Your task to perform on an android device: Open Youtube and go to the subscriptions tab Image 0: 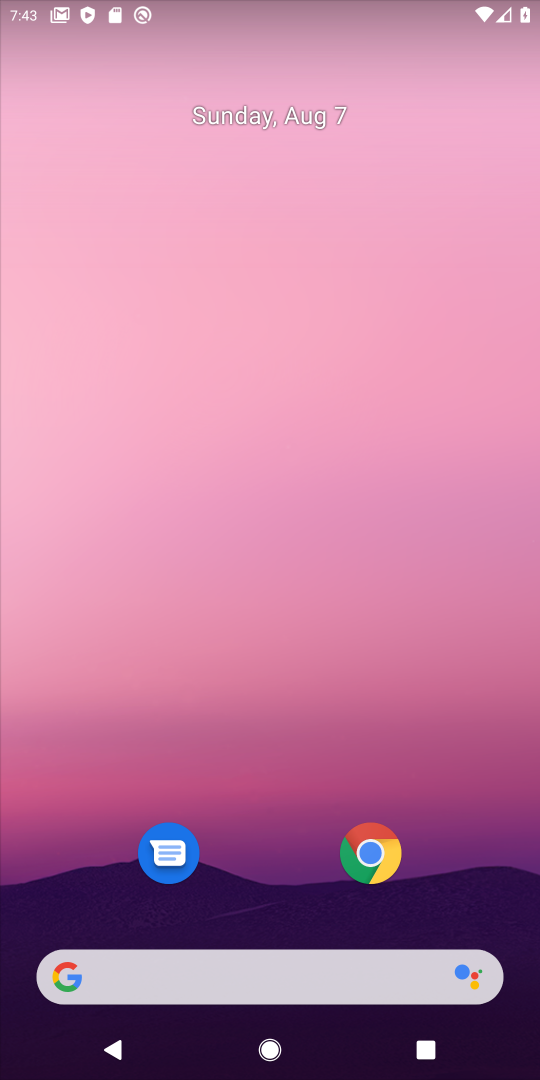
Step 0: drag from (278, 886) to (345, 113)
Your task to perform on an android device: Open Youtube and go to the subscriptions tab Image 1: 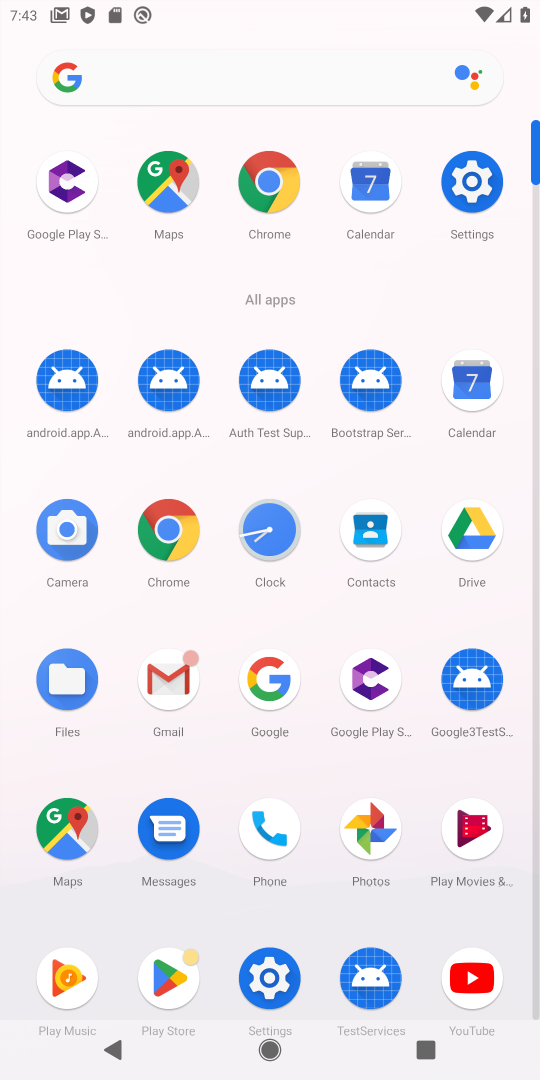
Step 1: click (471, 983)
Your task to perform on an android device: Open Youtube and go to the subscriptions tab Image 2: 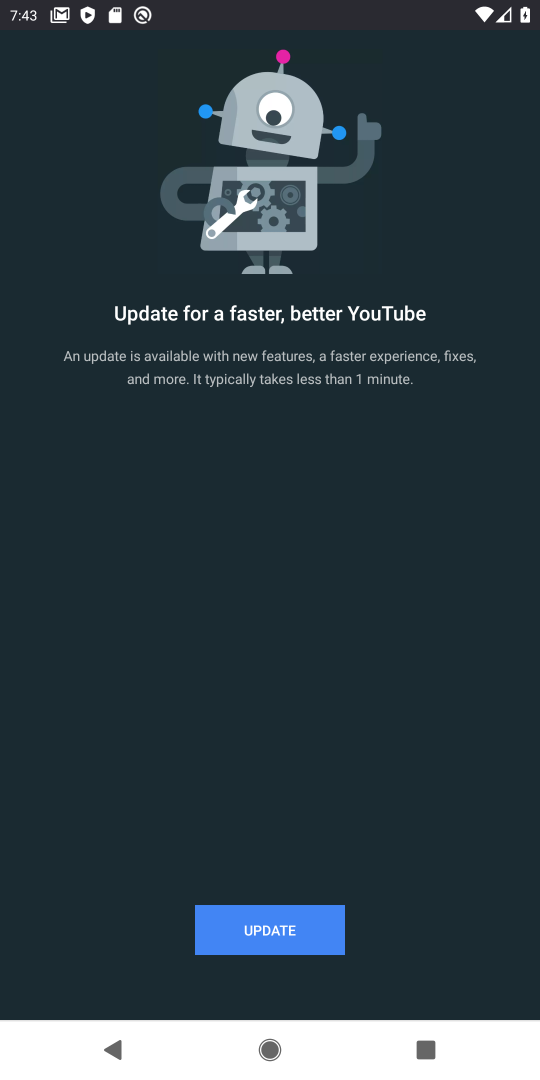
Step 2: click (293, 918)
Your task to perform on an android device: Open Youtube and go to the subscriptions tab Image 3: 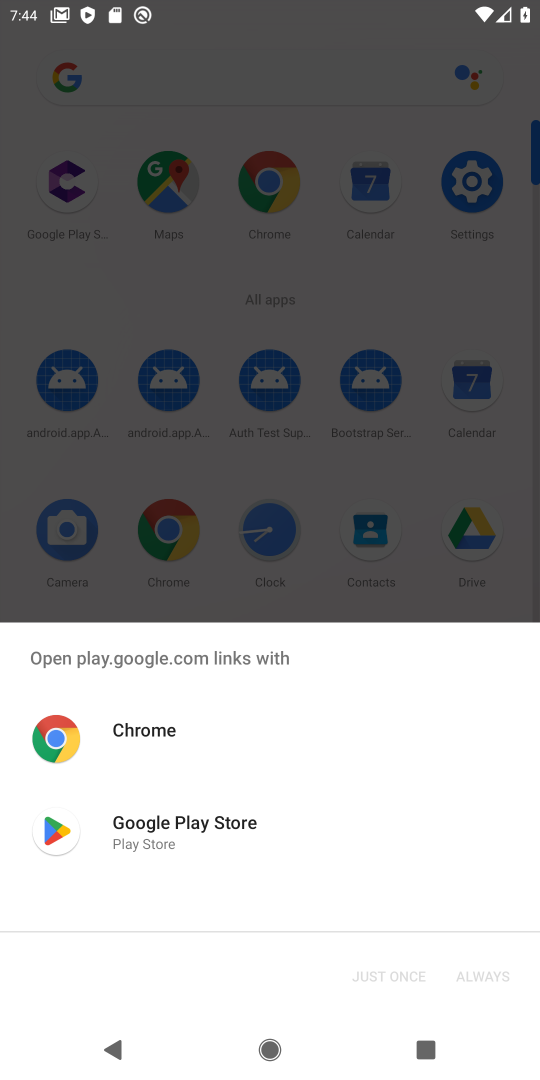
Step 3: click (175, 831)
Your task to perform on an android device: Open Youtube and go to the subscriptions tab Image 4: 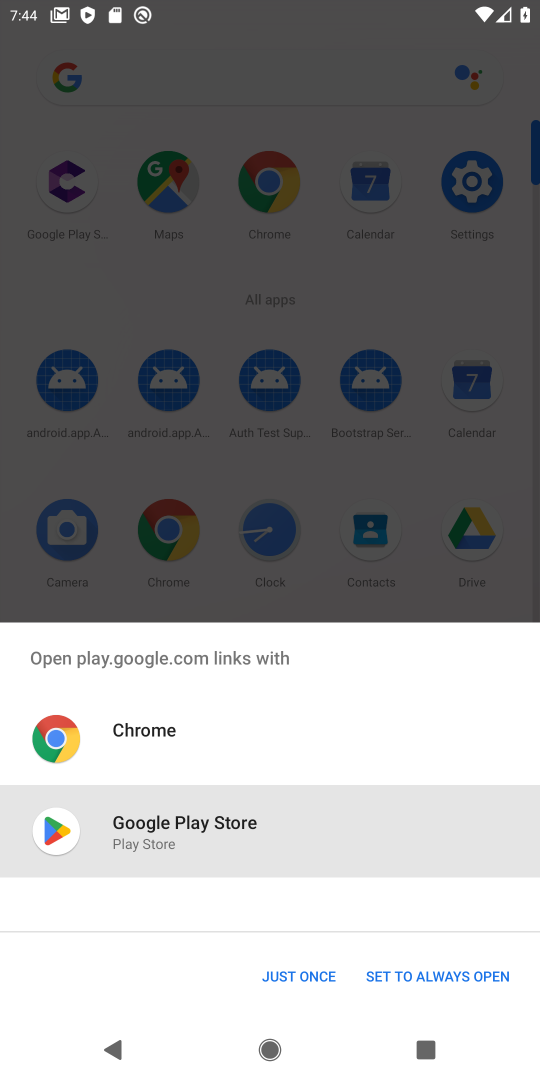
Step 4: click (309, 977)
Your task to perform on an android device: Open Youtube and go to the subscriptions tab Image 5: 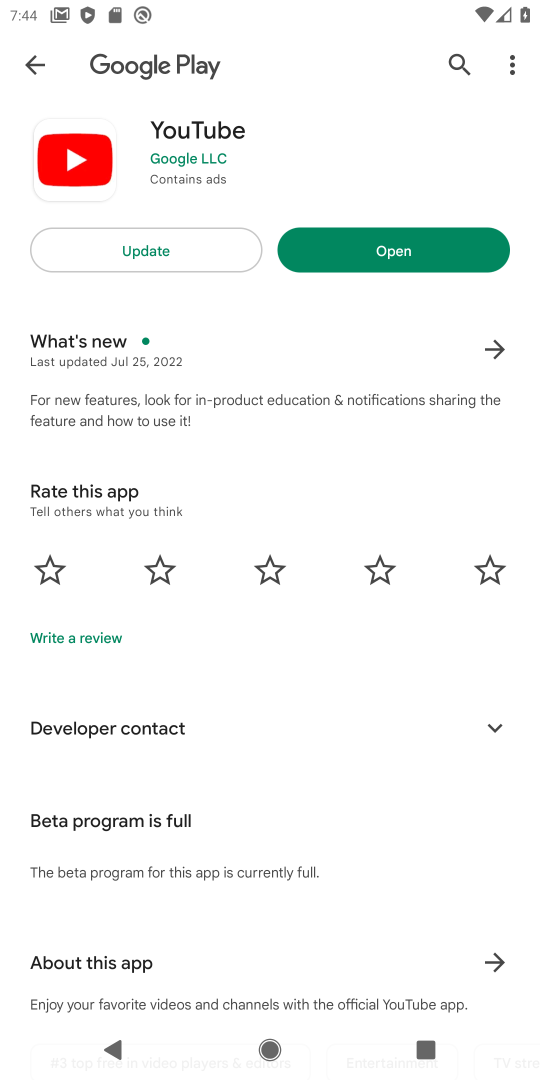
Step 5: click (190, 239)
Your task to perform on an android device: Open Youtube and go to the subscriptions tab Image 6: 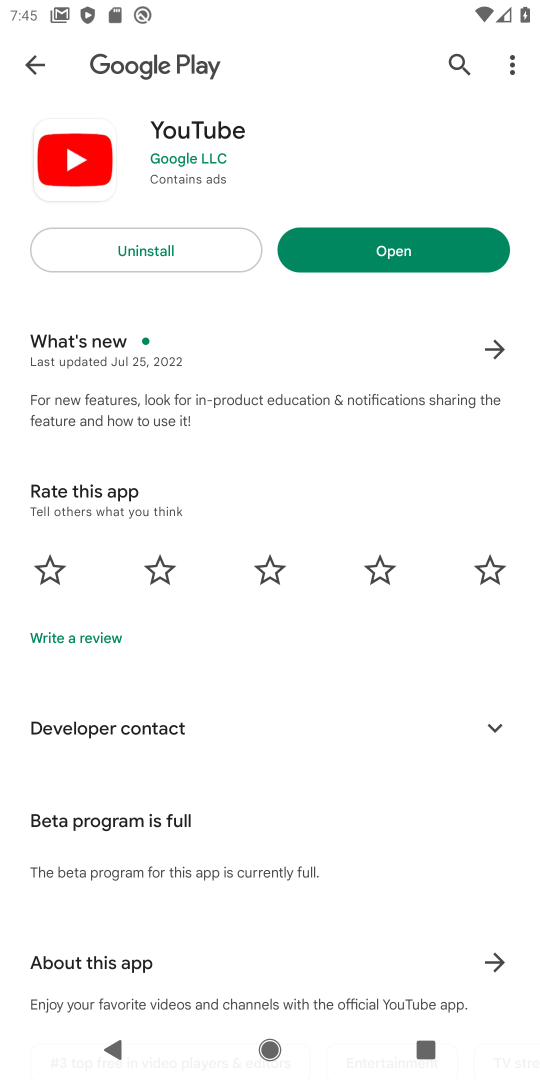
Step 6: click (407, 246)
Your task to perform on an android device: Open Youtube and go to the subscriptions tab Image 7: 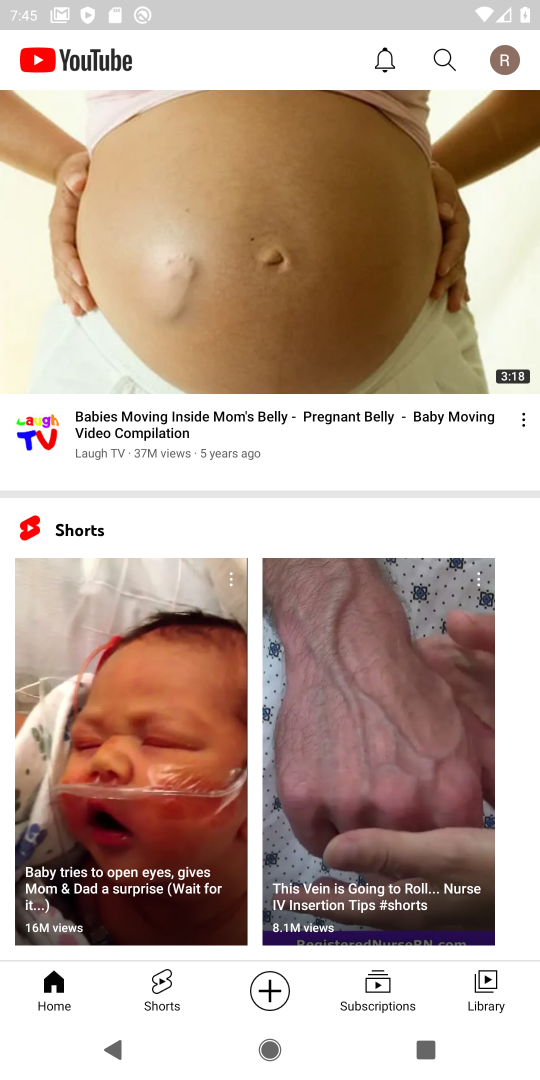
Step 7: click (382, 992)
Your task to perform on an android device: Open Youtube and go to the subscriptions tab Image 8: 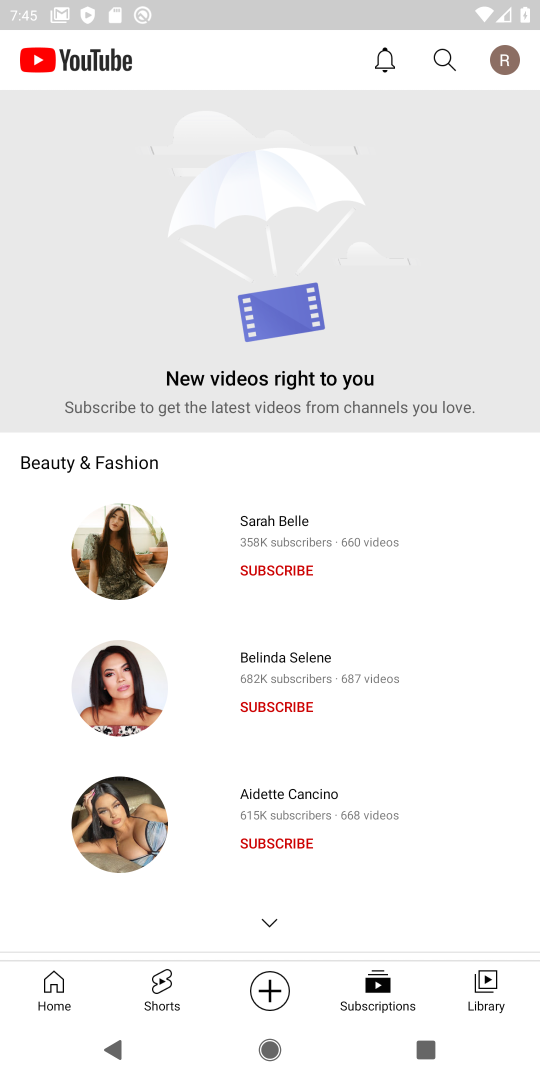
Step 8: task complete